Your task to perform on an android device: open app "Facebook Lite" (install if not already installed) and enter user name: "suppers@inbox.com" and password: "downplayed" Image 0: 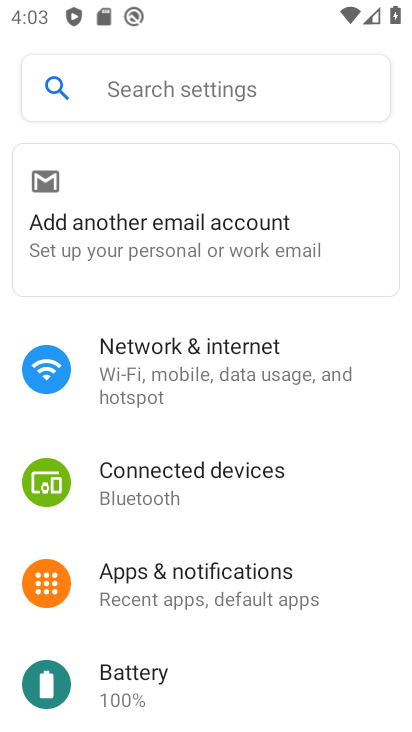
Step 0: press home button
Your task to perform on an android device: open app "Facebook Lite" (install if not already installed) and enter user name: "suppers@inbox.com" and password: "downplayed" Image 1: 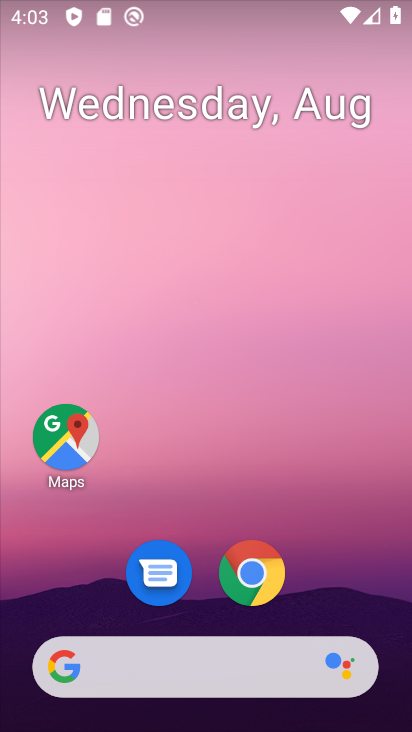
Step 1: drag from (222, 511) to (248, 25)
Your task to perform on an android device: open app "Facebook Lite" (install if not already installed) and enter user name: "suppers@inbox.com" and password: "downplayed" Image 2: 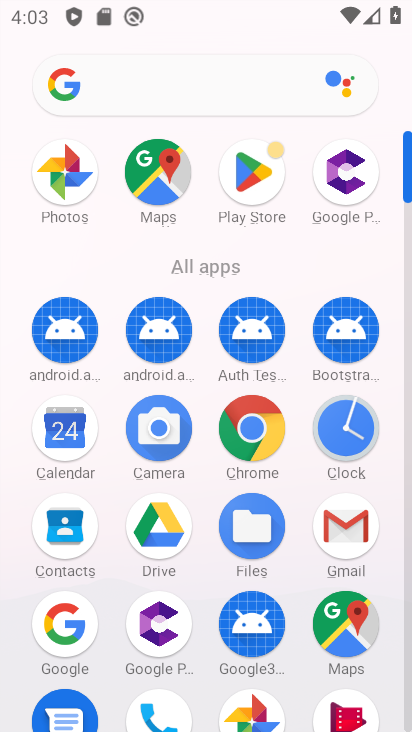
Step 2: click (258, 157)
Your task to perform on an android device: open app "Facebook Lite" (install if not already installed) and enter user name: "suppers@inbox.com" and password: "downplayed" Image 3: 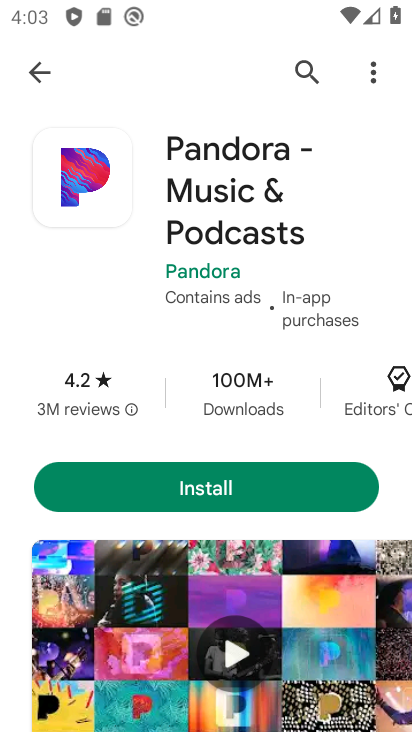
Step 3: click (309, 68)
Your task to perform on an android device: open app "Facebook Lite" (install if not already installed) and enter user name: "suppers@inbox.com" and password: "downplayed" Image 4: 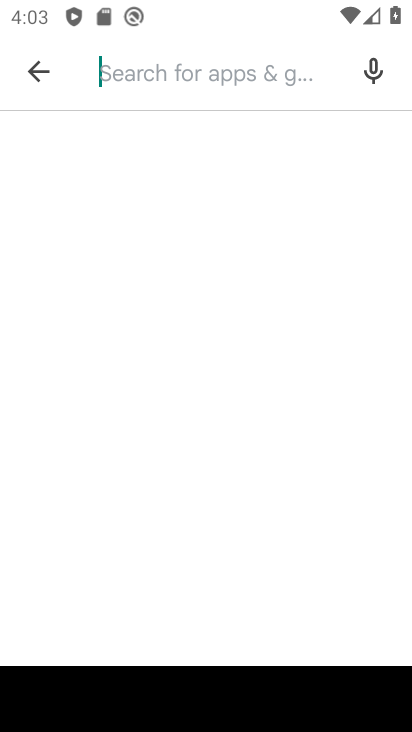
Step 4: type "Facebook Lite"
Your task to perform on an android device: open app "Facebook Lite" (install if not already installed) and enter user name: "suppers@inbox.com" and password: "downplayed" Image 5: 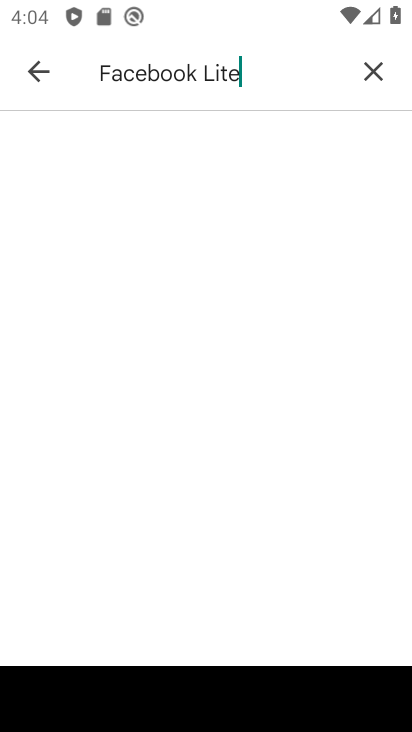
Step 5: type ""
Your task to perform on an android device: open app "Facebook Lite" (install if not already installed) and enter user name: "suppers@inbox.com" and password: "downplayed" Image 6: 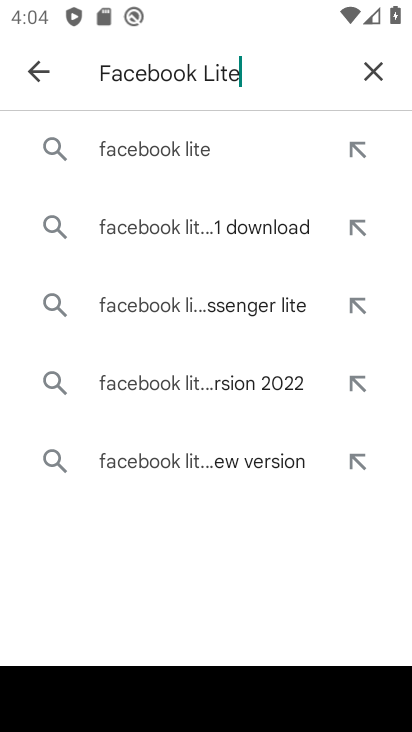
Step 6: click (193, 153)
Your task to perform on an android device: open app "Facebook Lite" (install if not already installed) and enter user name: "suppers@inbox.com" and password: "downplayed" Image 7: 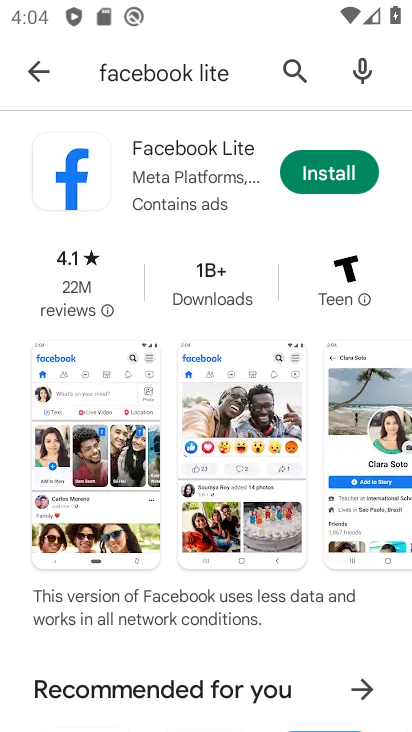
Step 7: click (294, 178)
Your task to perform on an android device: open app "Facebook Lite" (install if not already installed) and enter user name: "suppers@inbox.com" and password: "downplayed" Image 8: 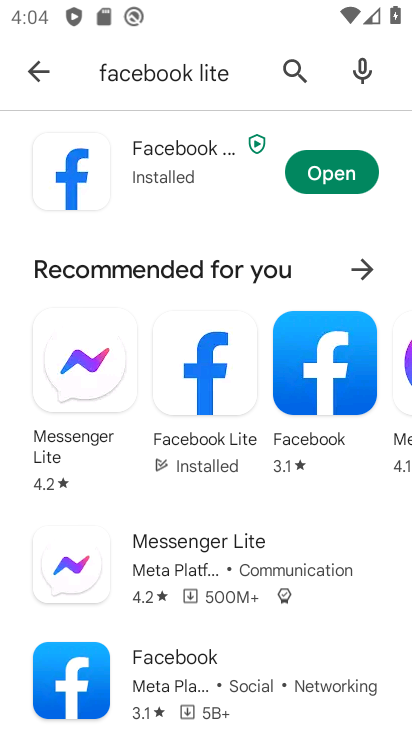
Step 8: click (309, 172)
Your task to perform on an android device: open app "Facebook Lite" (install if not already installed) and enter user name: "suppers@inbox.com" and password: "downplayed" Image 9: 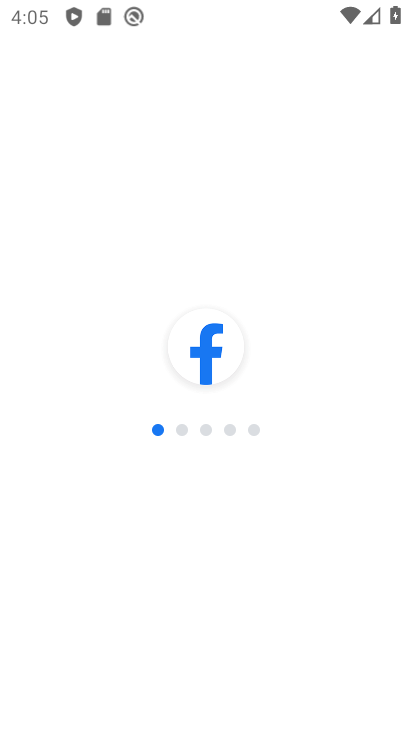
Step 9: task complete